Your task to perform on an android device: allow cookies in the chrome app Image 0: 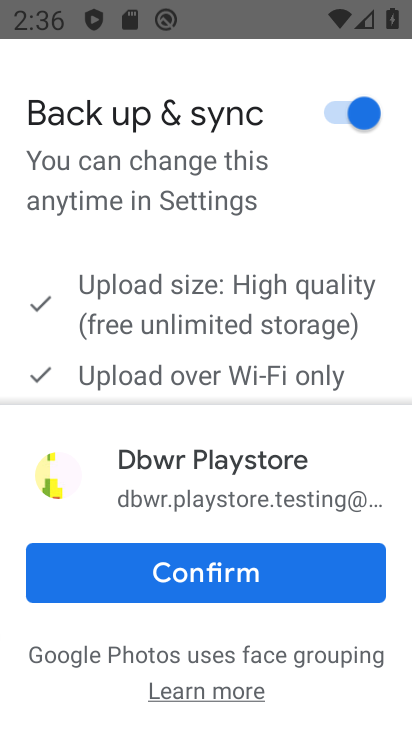
Step 0: press home button
Your task to perform on an android device: allow cookies in the chrome app Image 1: 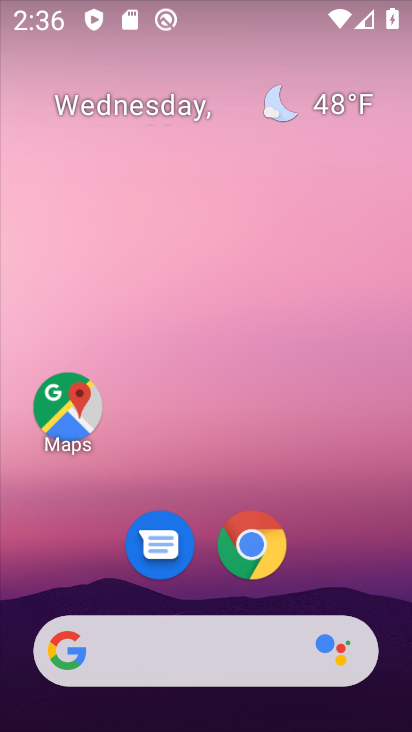
Step 1: click (264, 543)
Your task to perform on an android device: allow cookies in the chrome app Image 2: 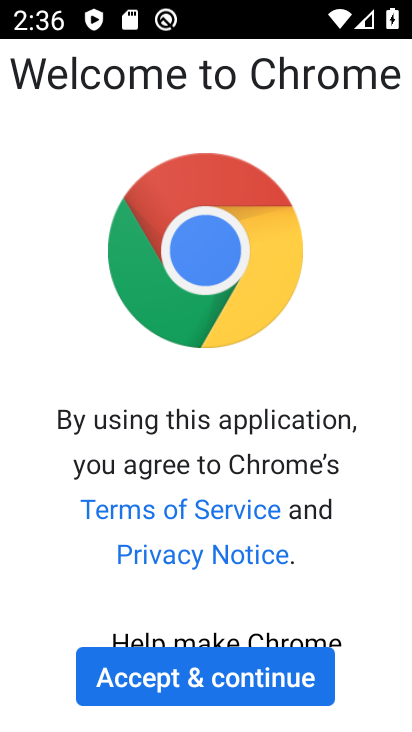
Step 2: click (234, 670)
Your task to perform on an android device: allow cookies in the chrome app Image 3: 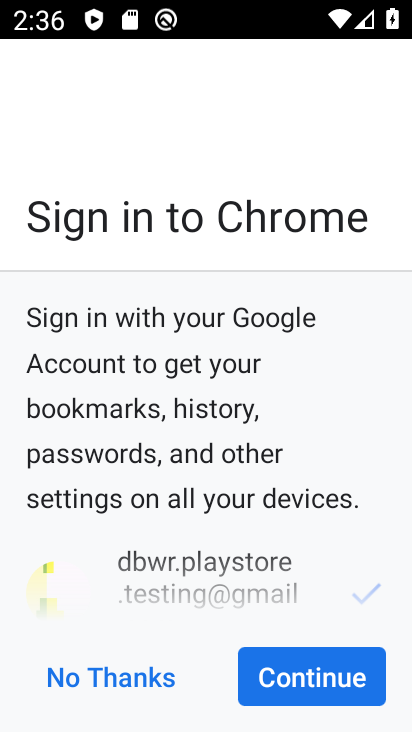
Step 3: click (346, 690)
Your task to perform on an android device: allow cookies in the chrome app Image 4: 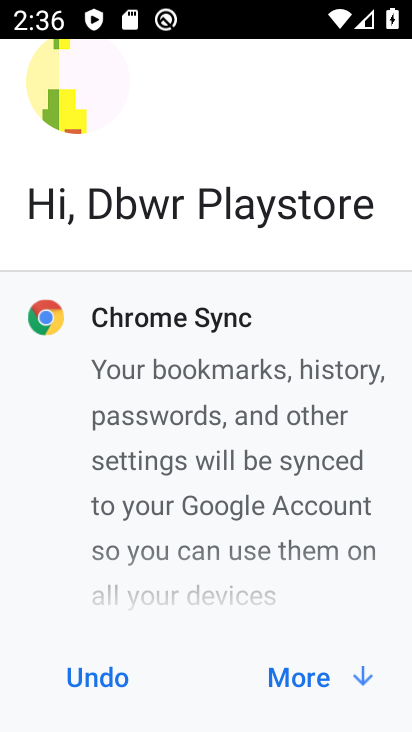
Step 4: click (346, 690)
Your task to perform on an android device: allow cookies in the chrome app Image 5: 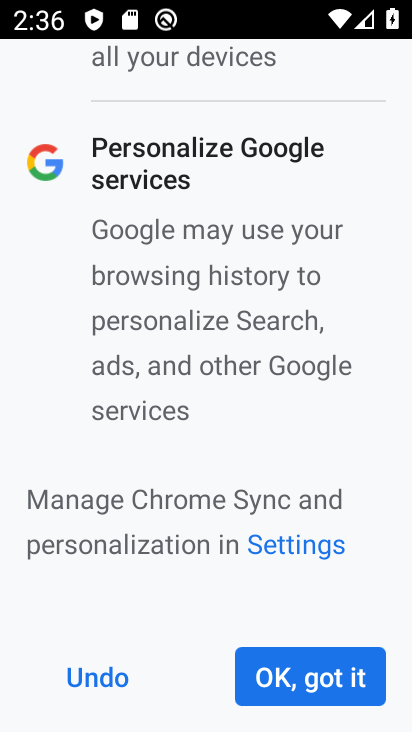
Step 5: click (328, 670)
Your task to perform on an android device: allow cookies in the chrome app Image 6: 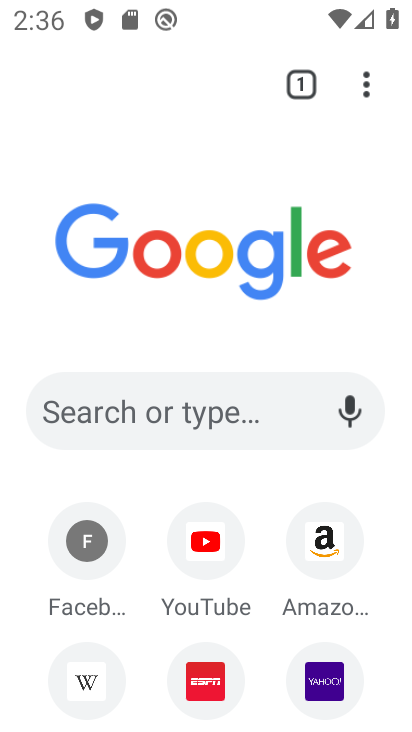
Step 6: click (364, 85)
Your task to perform on an android device: allow cookies in the chrome app Image 7: 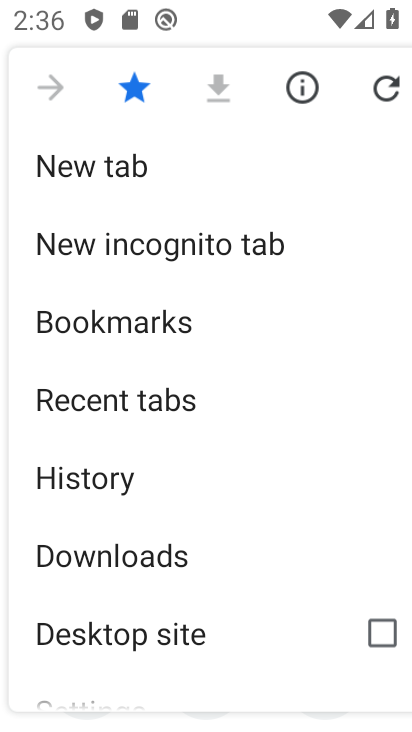
Step 7: drag from (269, 600) to (266, 125)
Your task to perform on an android device: allow cookies in the chrome app Image 8: 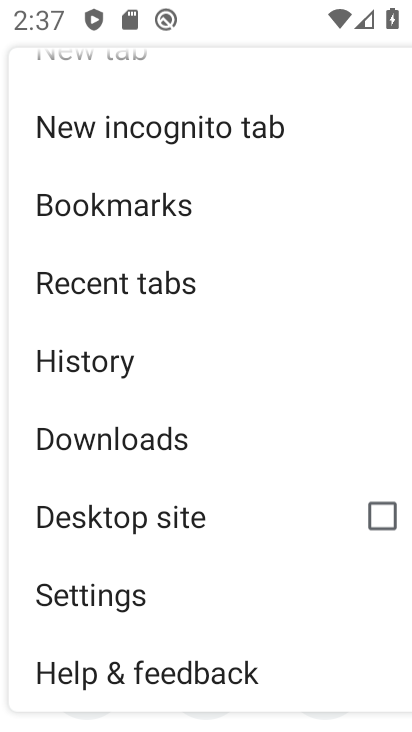
Step 8: click (244, 598)
Your task to perform on an android device: allow cookies in the chrome app Image 9: 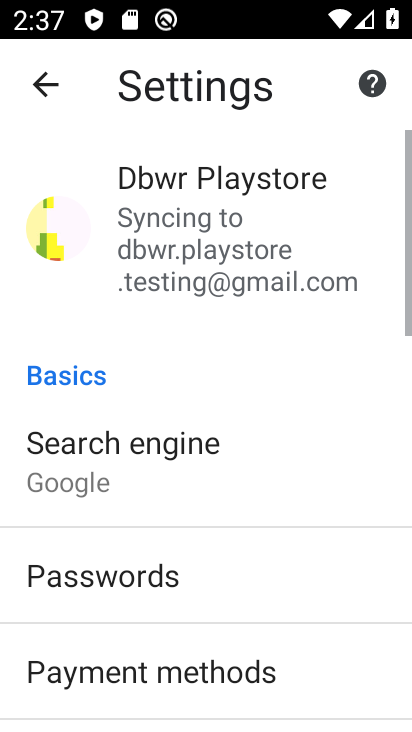
Step 9: drag from (248, 517) to (302, 92)
Your task to perform on an android device: allow cookies in the chrome app Image 10: 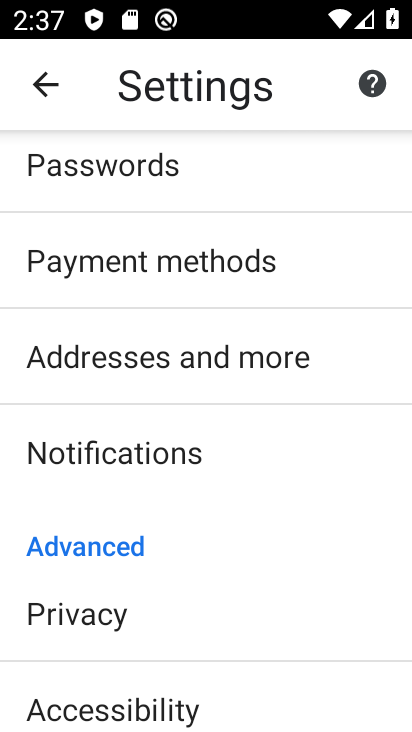
Step 10: drag from (250, 592) to (255, 145)
Your task to perform on an android device: allow cookies in the chrome app Image 11: 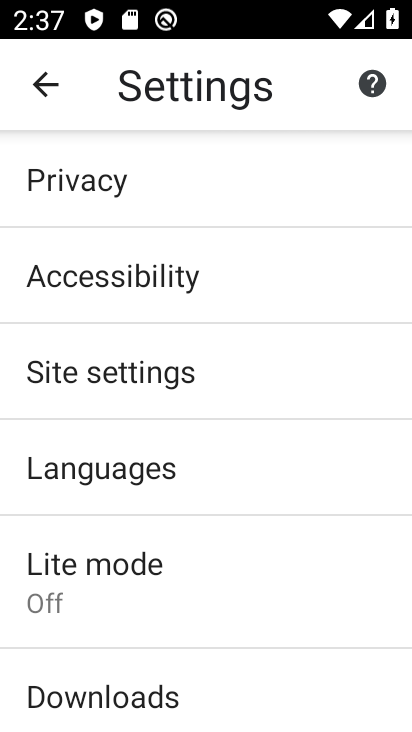
Step 11: click (220, 374)
Your task to perform on an android device: allow cookies in the chrome app Image 12: 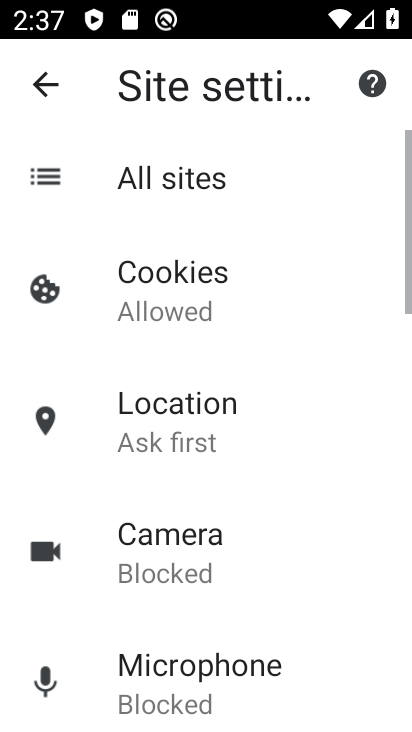
Step 12: click (280, 260)
Your task to perform on an android device: allow cookies in the chrome app Image 13: 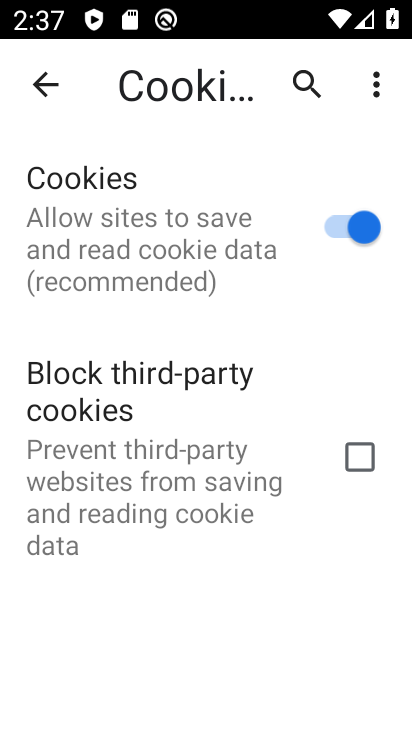
Step 13: task complete